Your task to perform on an android device: Open the Play Movies app and select the watchlist tab. Image 0: 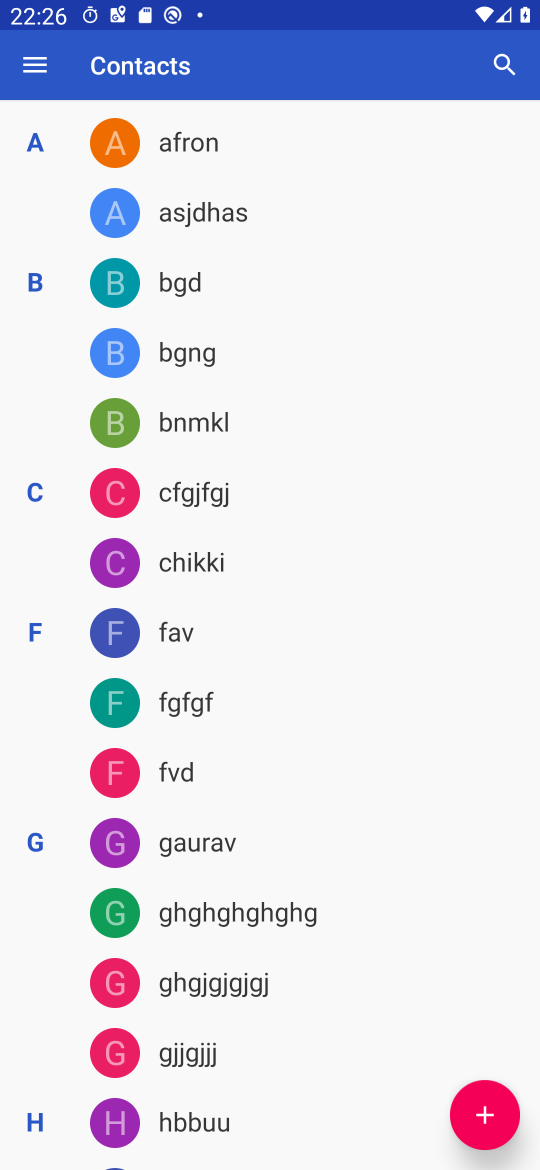
Step 0: press home button
Your task to perform on an android device: Open the Play Movies app and select the watchlist tab. Image 1: 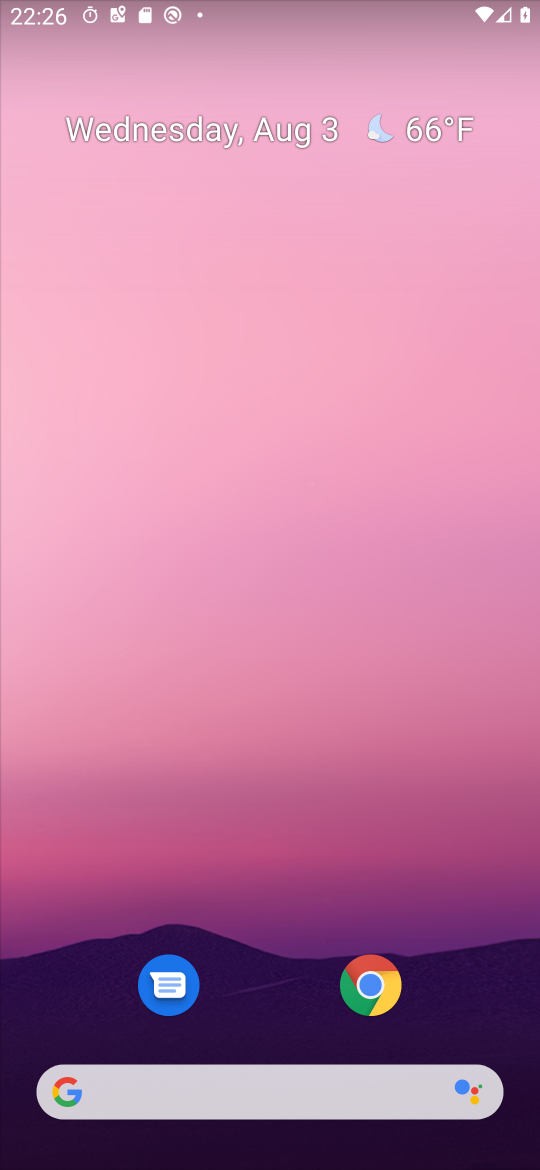
Step 1: drag from (290, 958) to (295, 92)
Your task to perform on an android device: Open the Play Movies app and select the watchlist tab. Image 2: 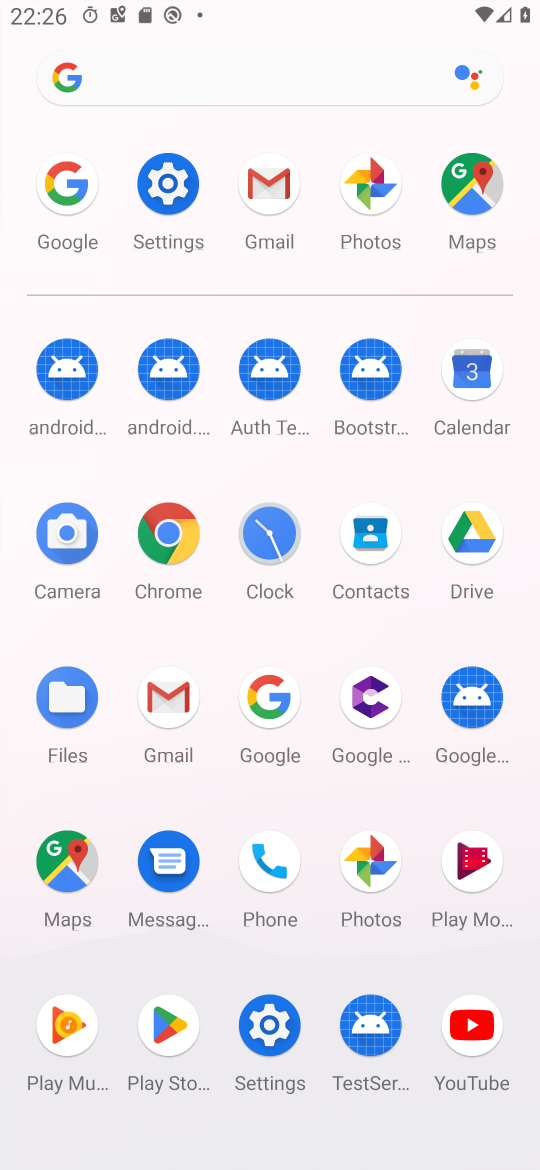
Step 2: click (452, 886)
Your task to perform on an android device: Open the Play Movies app and select the watchlist tab. Image 3: 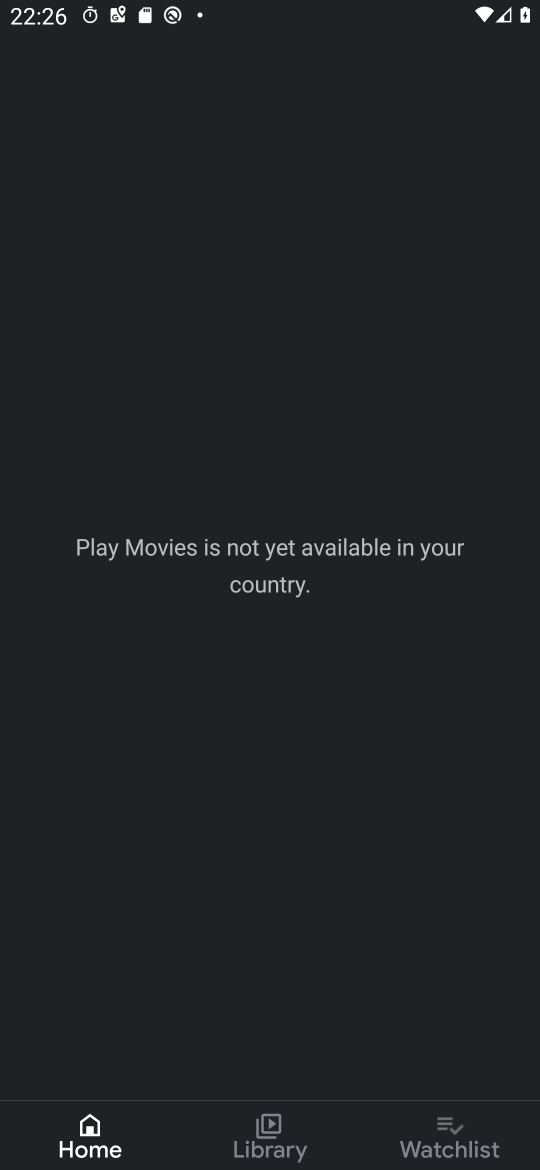
Step 3: click (439, 1145)
Your task to perform on an android device: Open the Play Movies app and select the watchlist tab. Image 4: 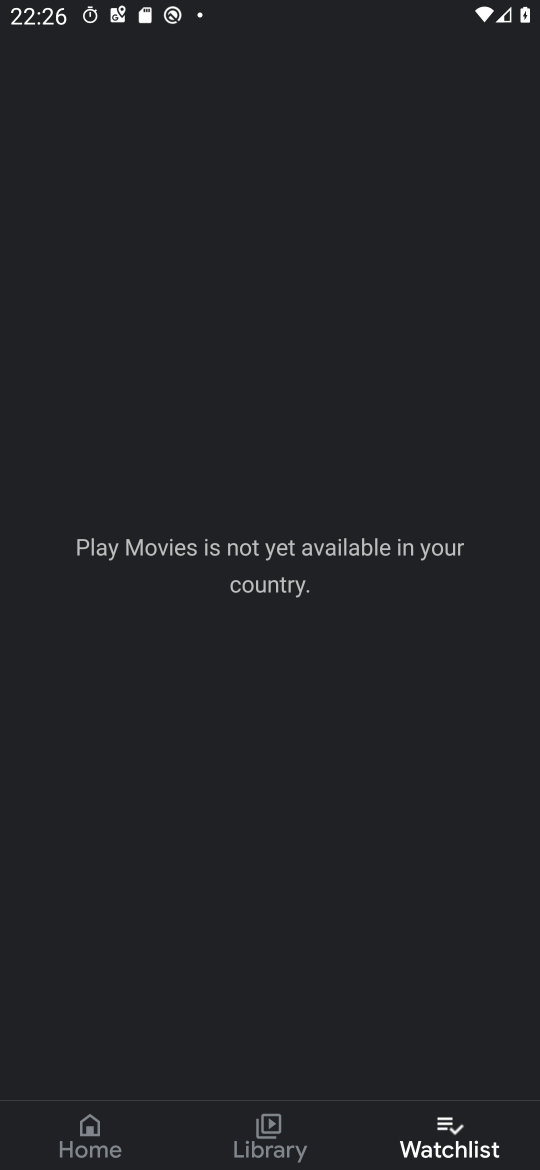
Step 4: task complete